Your task to perform on an android device: open a new tab in the chrome app Image 0: 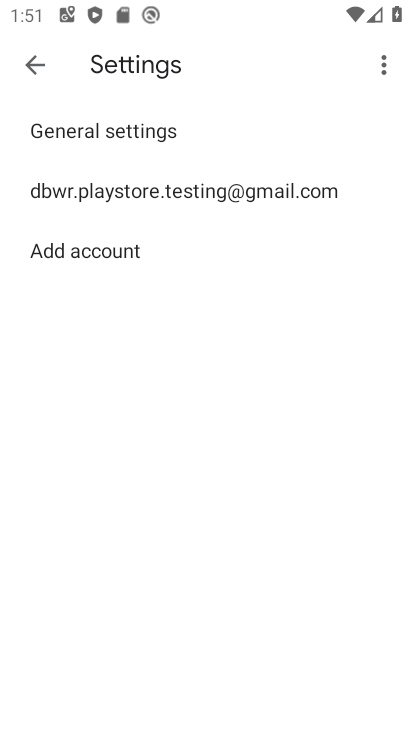
Step 0: press home button
Your task to perform on an android device: open a new tab in the chrome app Image 1: 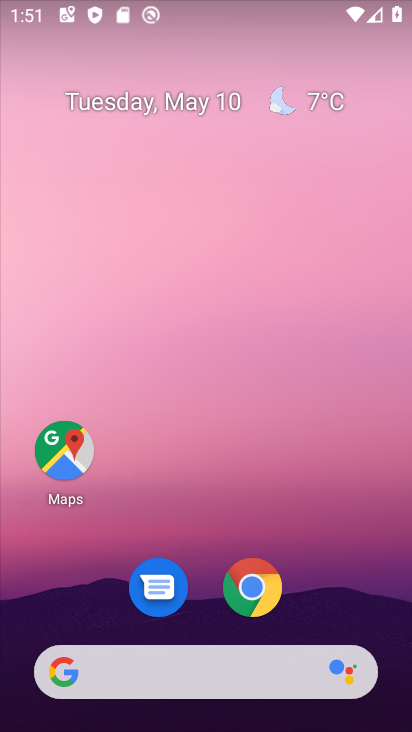
Step 1: click (267, 573)
Your task to perform on an android device: open a new tab in the chrome app Image 2: 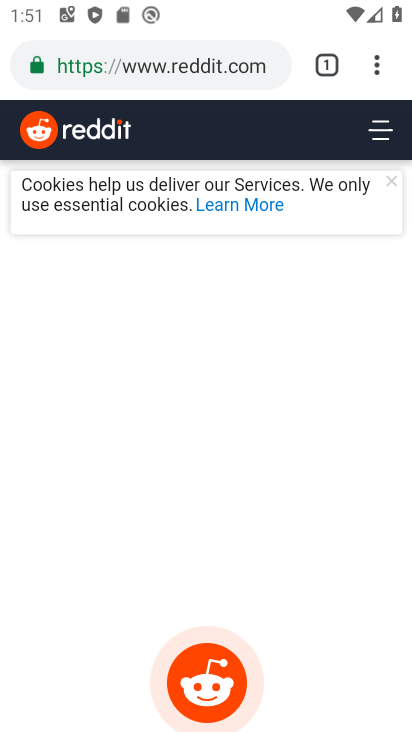
Step 2: click (378, 63)
Your task to perform on an android device: open a new tab in the chrome app Image 3: 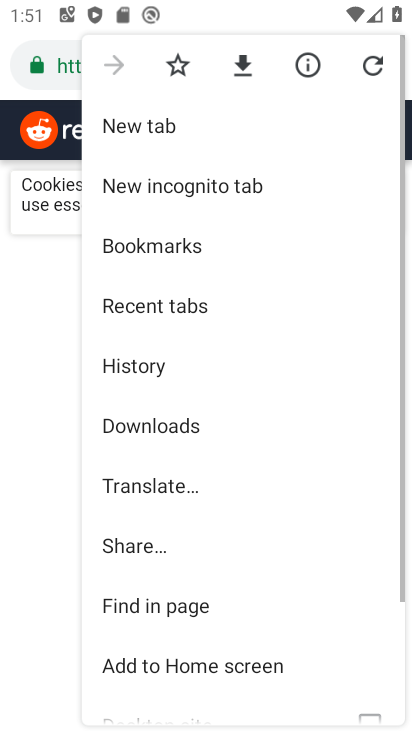
Step 3: click (132, 122)
Your task to perform on an android device: open a new tab in the chrome app Image 4: 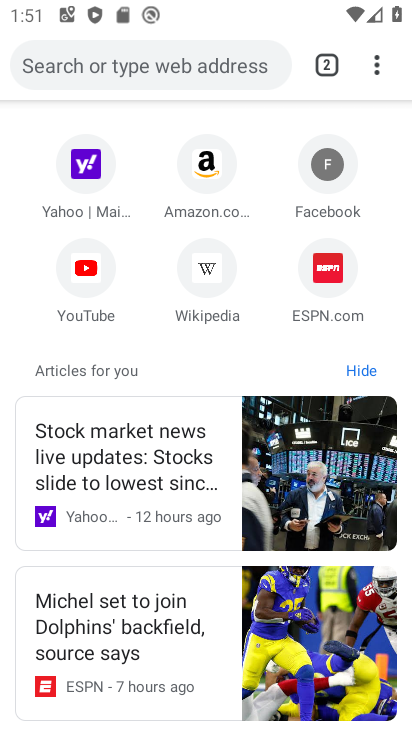
Step 4: task complete